Your task to perform on an android device: Open sound settings Image 0: 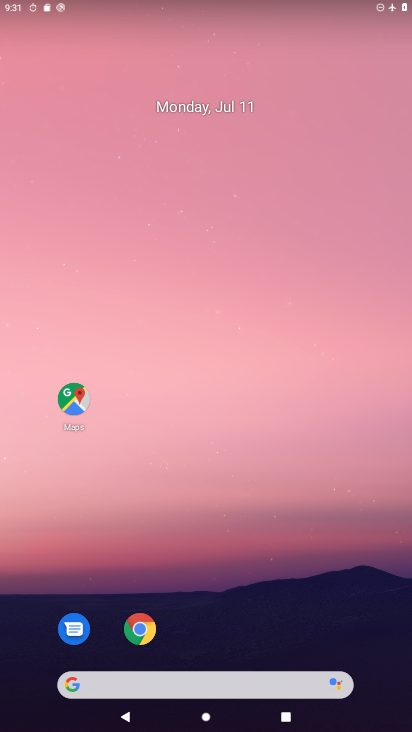
Step 0: drag from (313, 6) to (336, 536)
Your task to perform on an android device: Open sound settings Image 1: 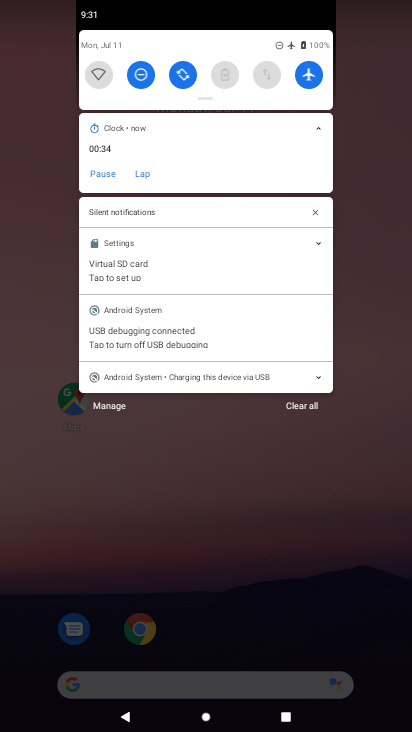
Step 1: drag from (204, 49) to (249, 587)
Your task to perform on an android device: Open sound settings Image 2: 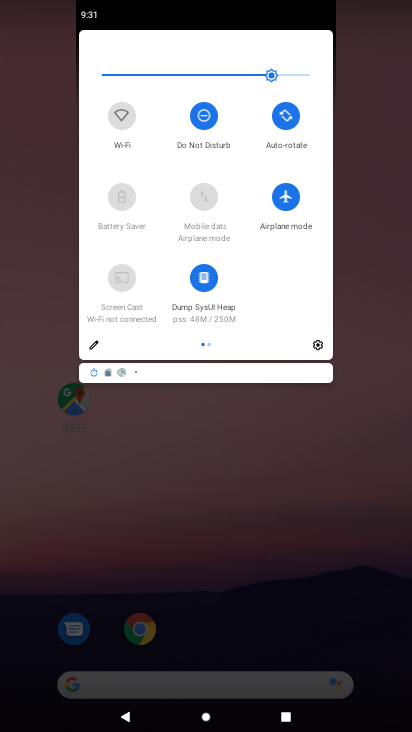
Step 2: click (320, 337)
Your task to perform on an android device: Open sound settings Image 3: 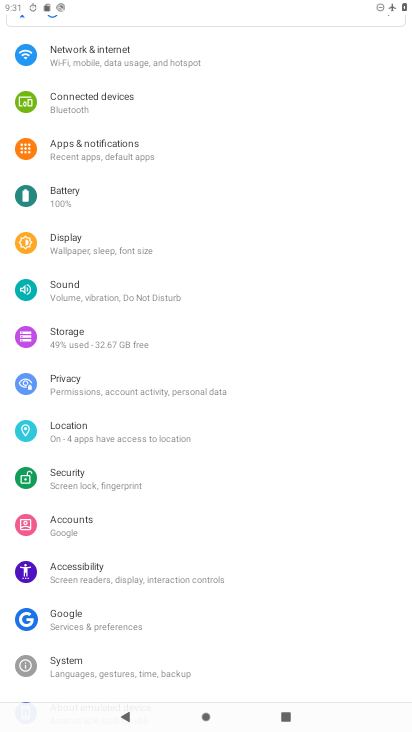
Step 3: click (73, 287)
Your task to perform on an android device: Open sound settings Image 4: 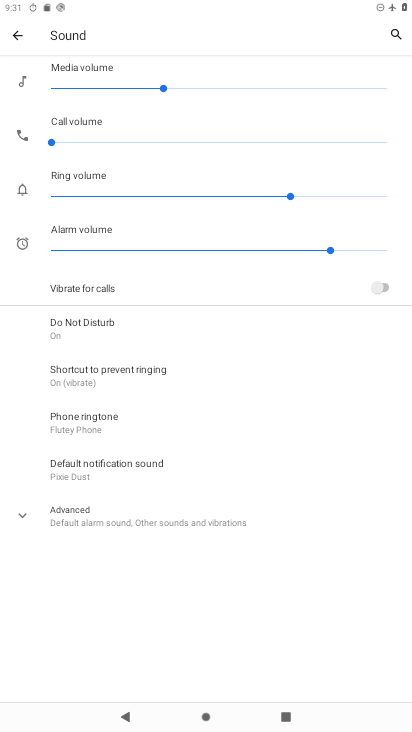
Step 4: task complete